Your task to perform on an android device: Open Google Chrome Image 0: 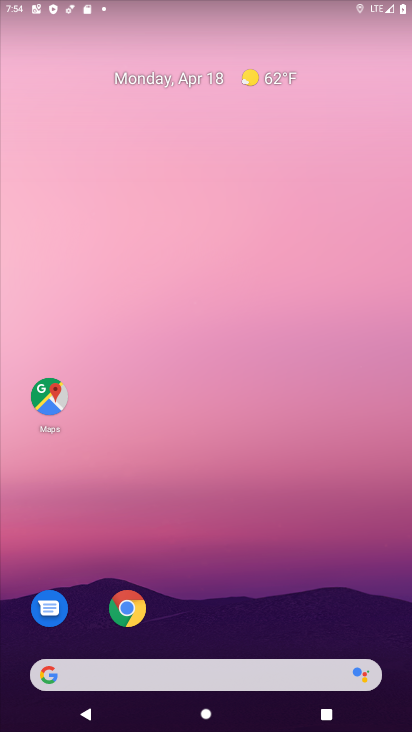
Step 0: click (124, 614)
Your task to perform on an android device: Open Google Chrome Image 1: 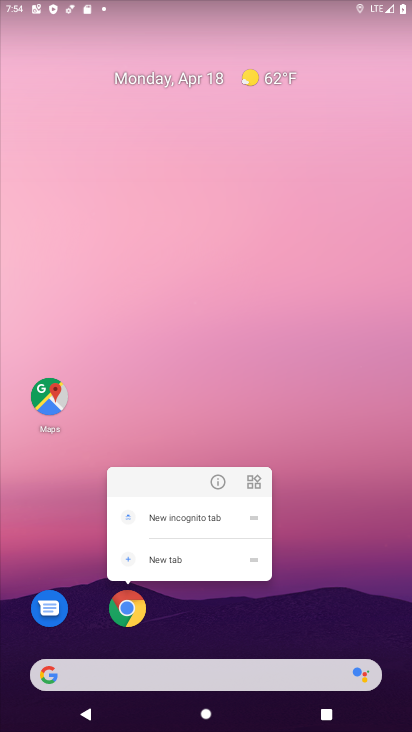
Step 1: click (124, 614)
Your task to perform on an android device: Open Google Chrome Image 2: 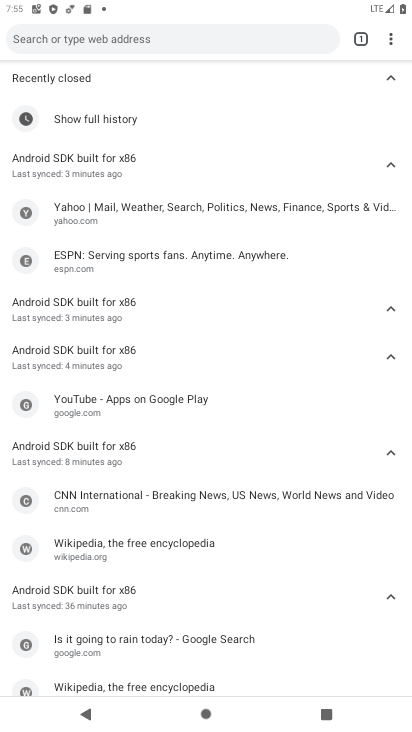
Step 2: task complete